Your task to perform on an android device: Show me the alarms in the clock app Image 0: 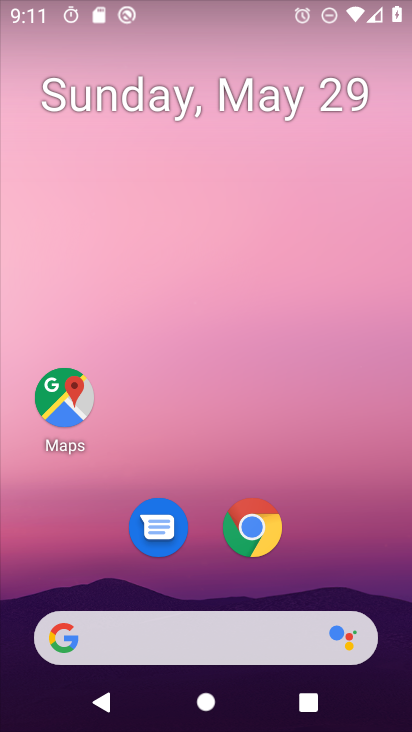
Step 0: drag from (401, 625) to (318, 36)
Your task to perform on an android device: Show me the alarms in the clock app Image 1: 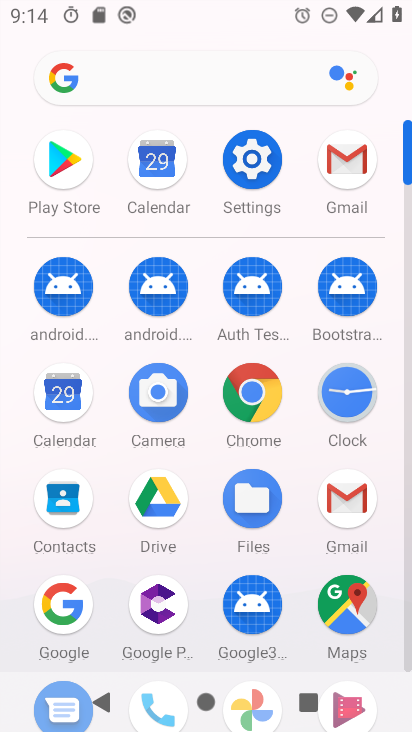
Step 1: click (340, 408)
Your task to perform on an android device: Show me the alarms in the clock app Image 2: 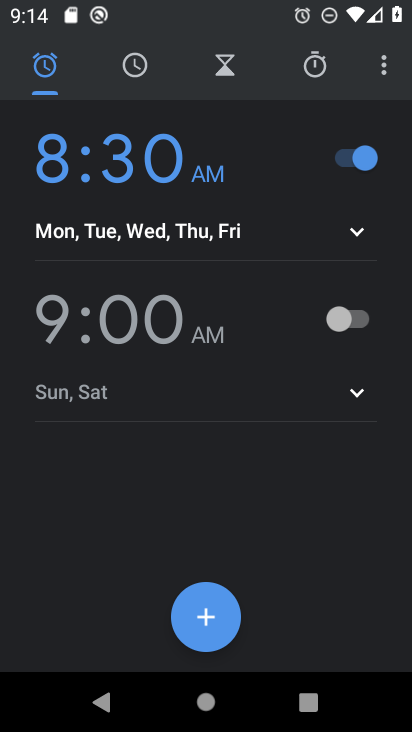
Step 2: task complete